Your task to perform on an android device: turn off sleep mode Image 0: 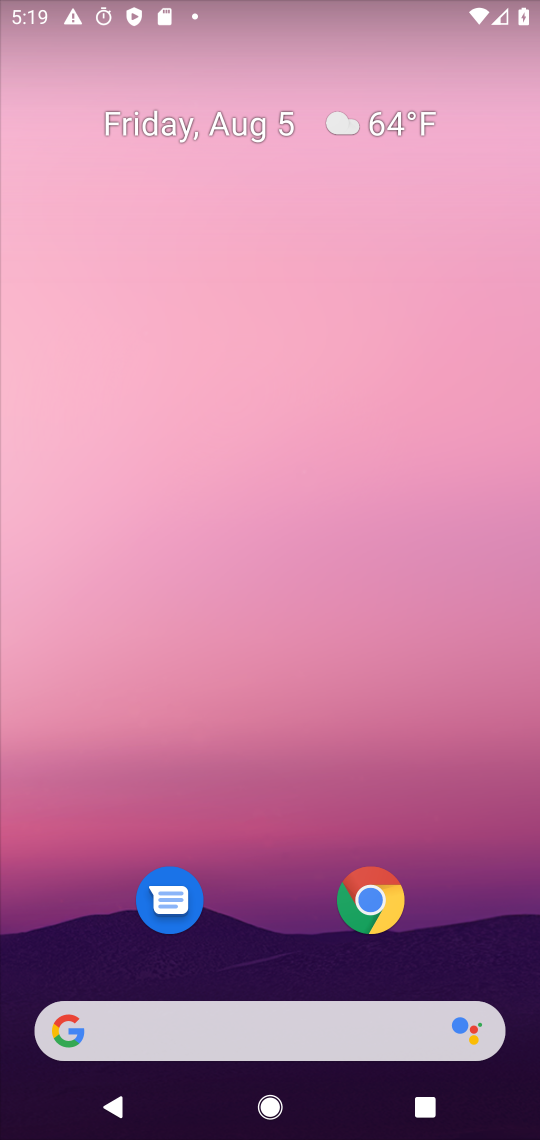
Step 0: drag from (244, 1010) to (275, 31)
Your task to perform on an android device: turn off sleep mode Image 1: 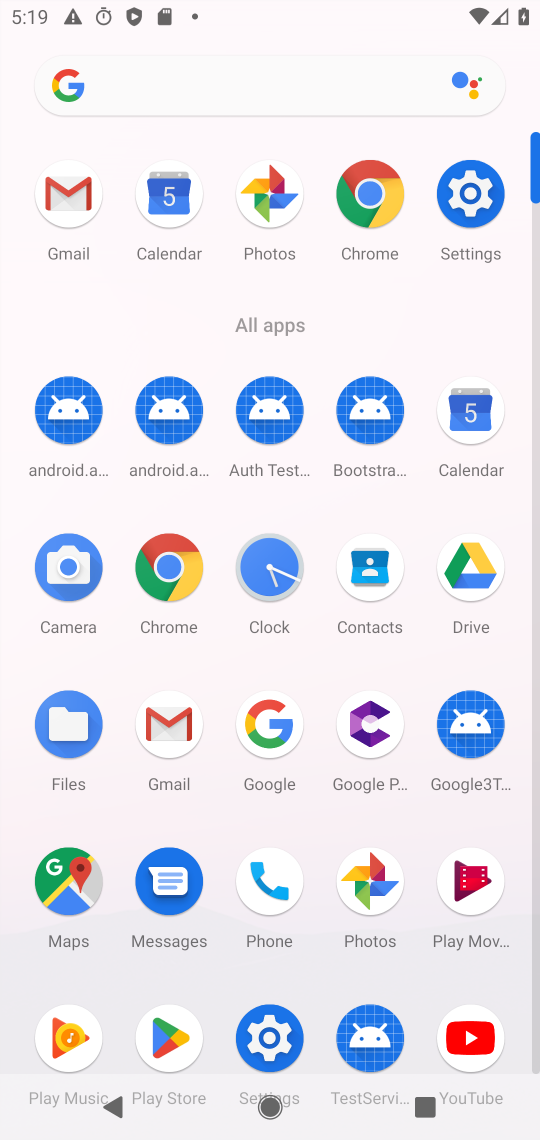
Step 1: click (457, 227)
Your task to perform on an android device: turn off sleep mode Image 2: 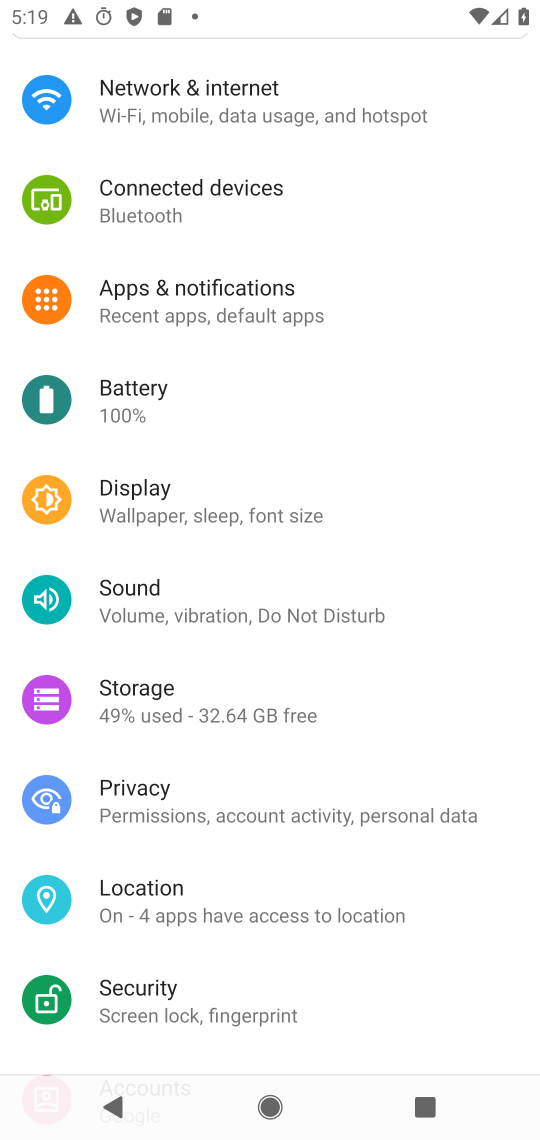
Step 2: click (150, 482)
Your task to perform on an android device: turn off sleep mode Image 3: 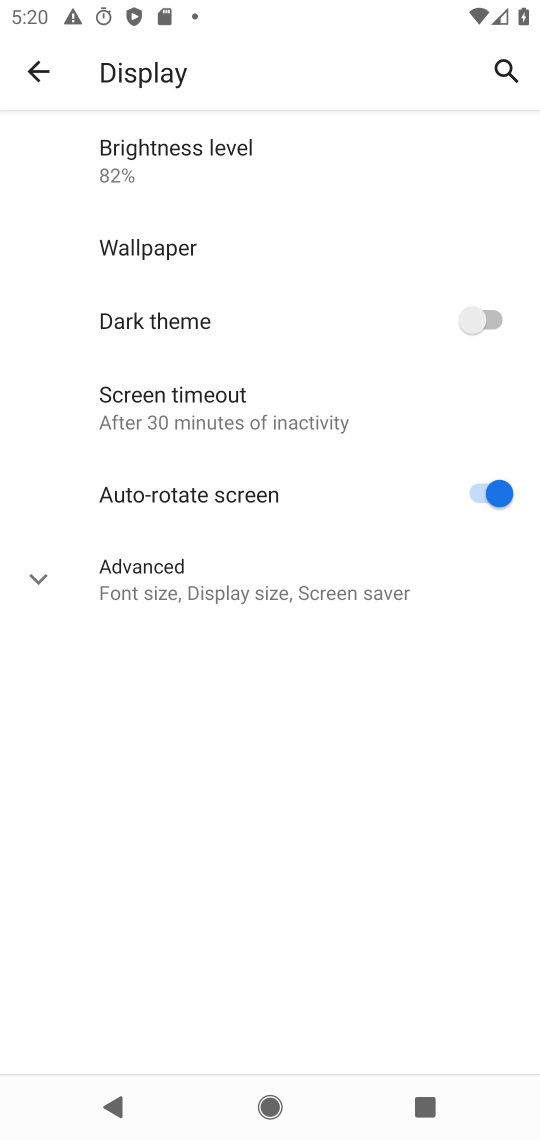
Step 3: click (210, 594)
Your task to perform on an android device: turn off sleep mode Image 4: 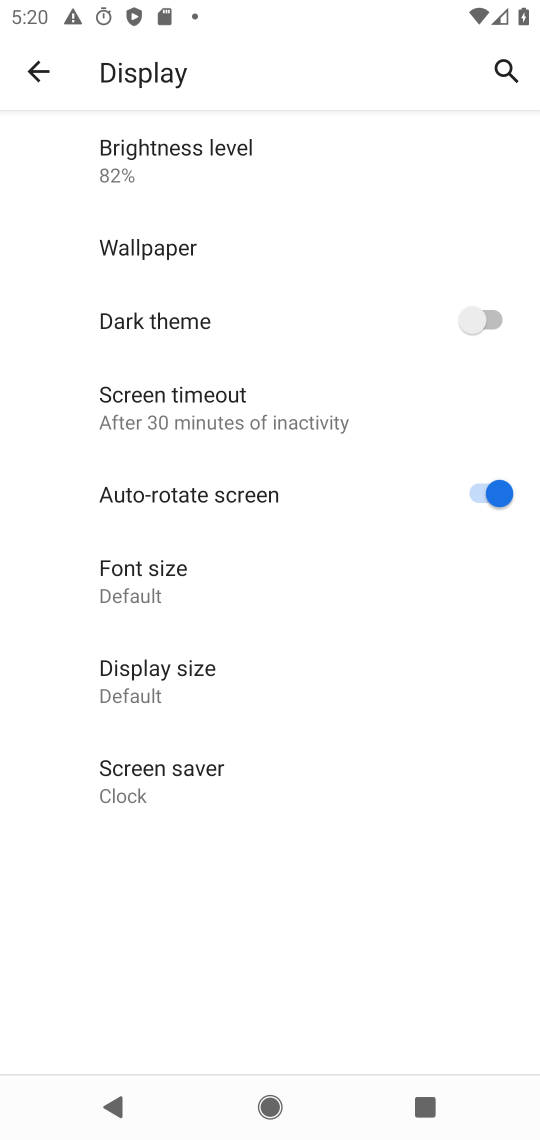
Step 4: task complete